Your task to perform on an android device: Is it going to rain tomorrow? Image 0: 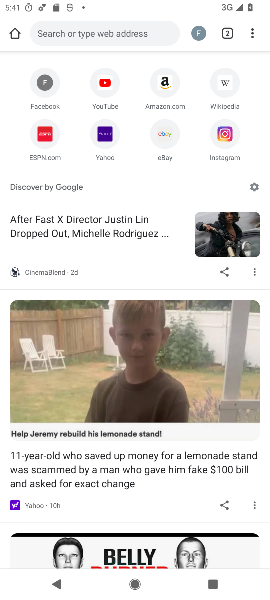
Step 0: press home button
Your task to perform on an android device: Is it going to rain tomorrow? Image 1: 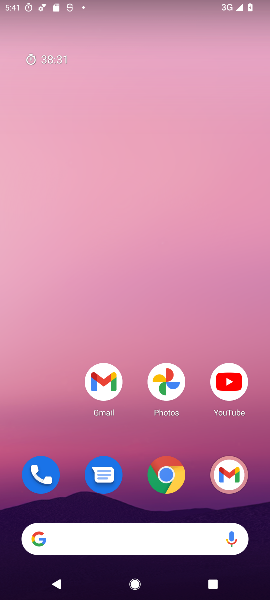
Step 1: click (133, 542)
Your task to perform on an android device: Is it going to rain tomorrow? Image 2: 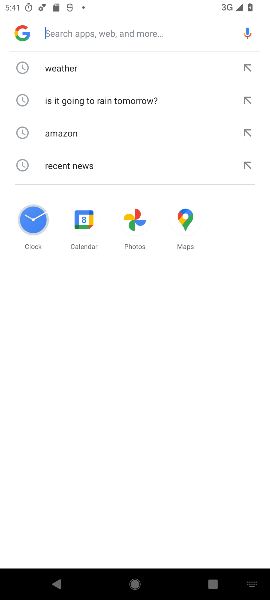
Step 2: click (74, 66)
Your task to perform on an android device: Is it going to rain tomorrow? Image 3: 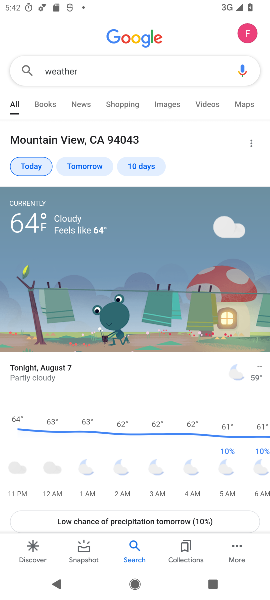
Step 3: click (85, 166)
Your task to perform on an android device: Is it going to rain tomorrow? Image 4: 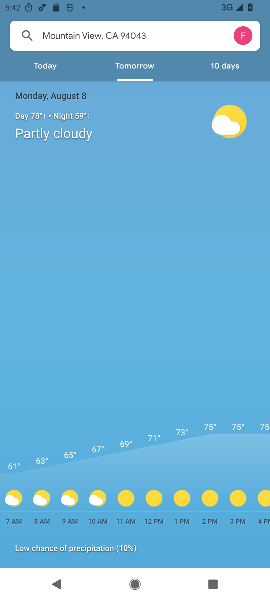
Step 4: task complete